Your task to perform on an android device: change the clock display to digital Image 0: 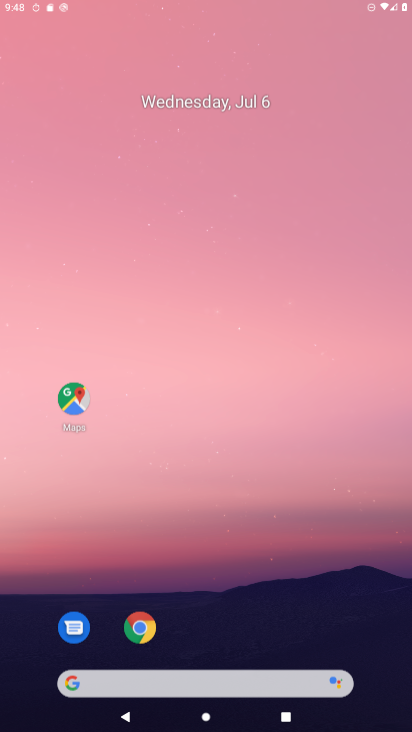
Step 0: press home button
Your task to perform on an android device: change the clock display to digital Image 1: 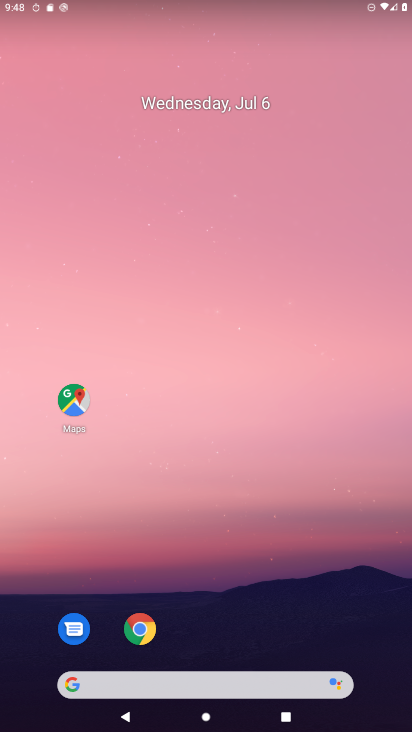
Step 1: drag from (238, 716) to (223, 545)
Your task to perform on an android device: change the clock display to digital Image 2: 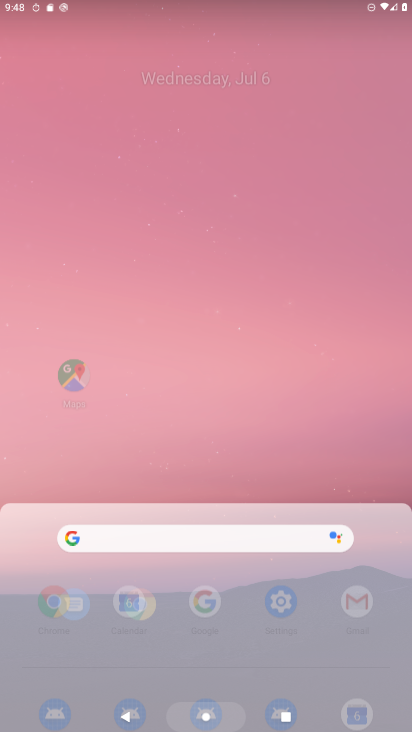
Step 2: drag from (218, 91) to (217, 33)
Your task to perform on an android device: change the clock display to digital Image 3: 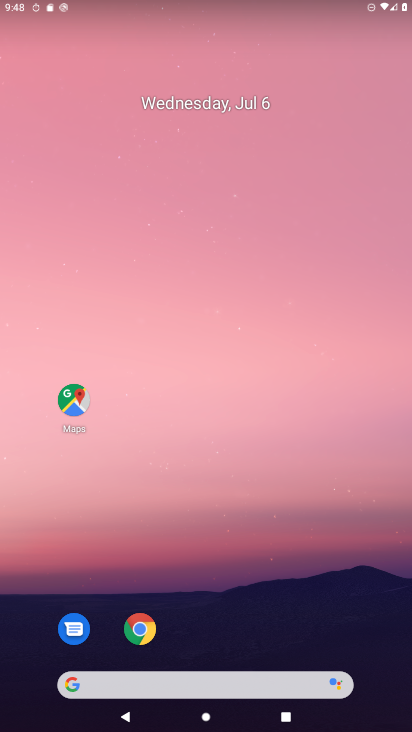
Step 3: drag from (246, 723) to (245, 50)
Your task to perform on an android device: change the clock display to digital Image 4: 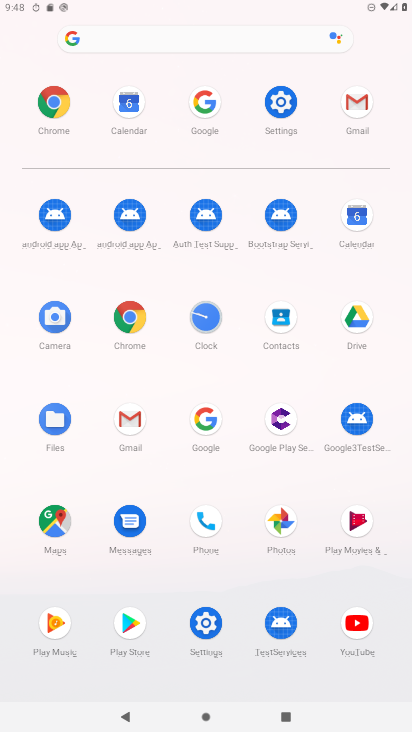
Step 4: click (204, 317)
Your task to perform on an android device: change the clock display to digital Image 5: 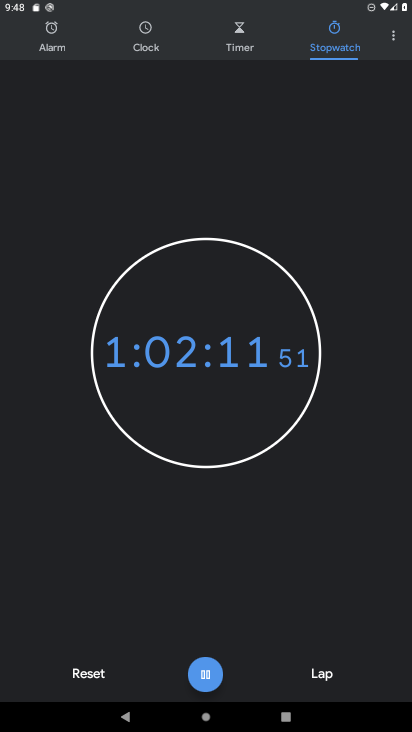
Step 5: click (394, 40)
Your task to perform on an android device: change the clock display to digital Image 6: 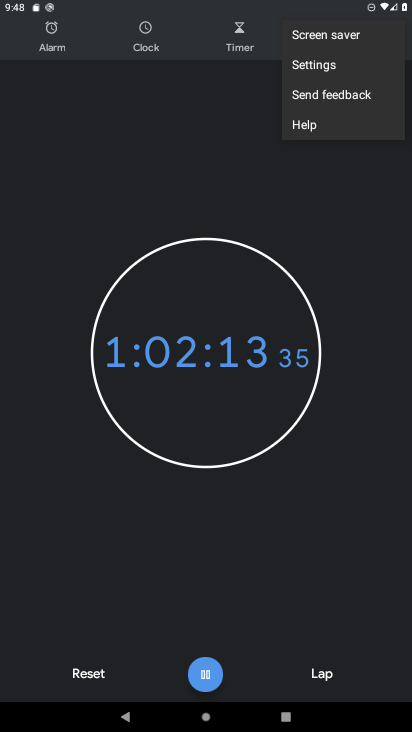
Step 6: click (330, 64)
Your task to perform on an android device: change the clock display to digital Image 7: 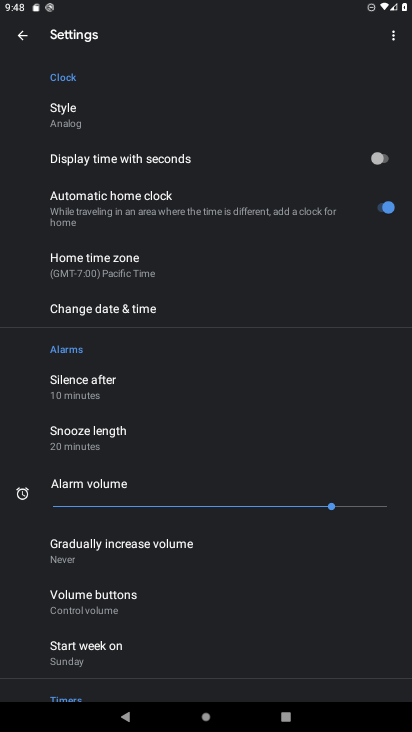
Step 7: click (71, 121)
Your task to perform on an android device: change the clock display to digital Image 8: 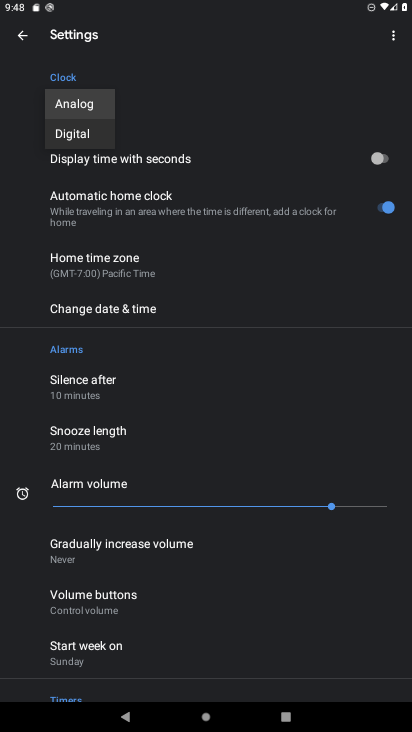
Step 8: click (72, 144)
Your task to perform on an android device: change the clock display to digital Image 9: 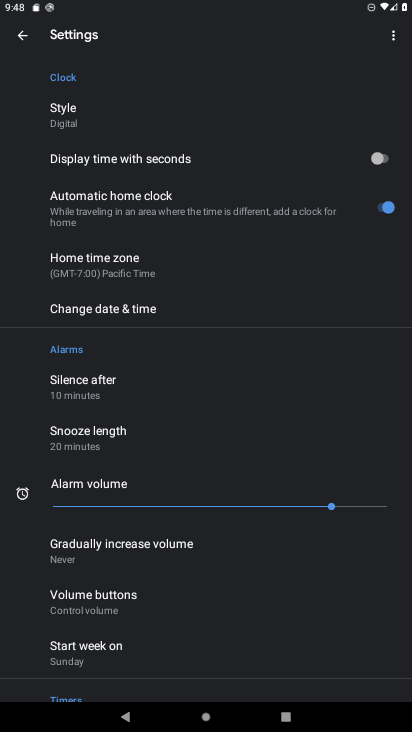
Step 9: task complete